Your task to perform on an android device: move a message to another label in the gmail app Image 0: 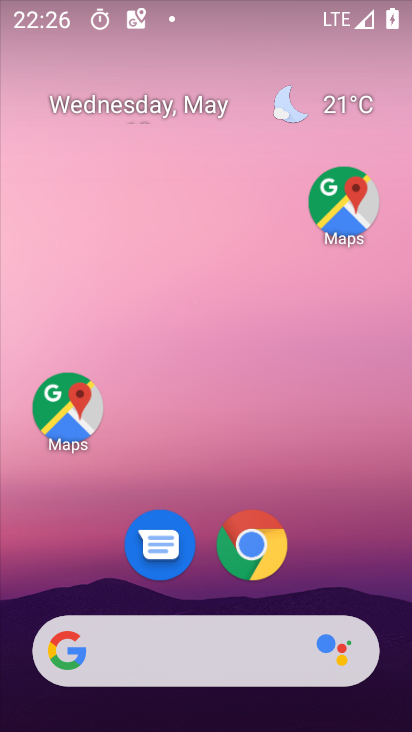
Step 0: drag from (308, 359) to (305, 49)
Your task to perform on an android device: move a message to another label in the gmail app Image 1: 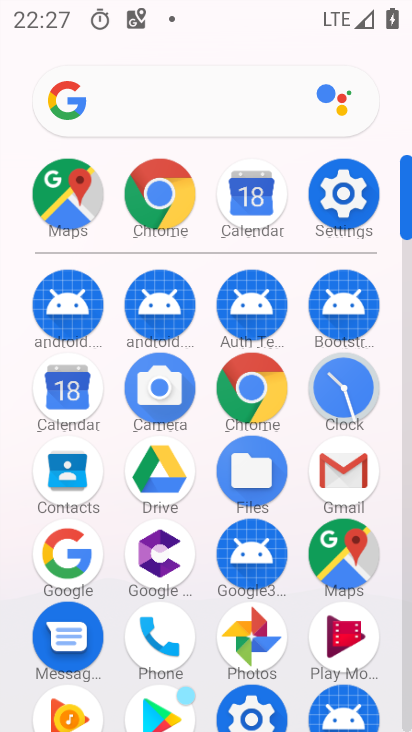
Step 1: click (338, 474)
Your task to perform on an android device: move a message to another label in the gmail app Image 2: 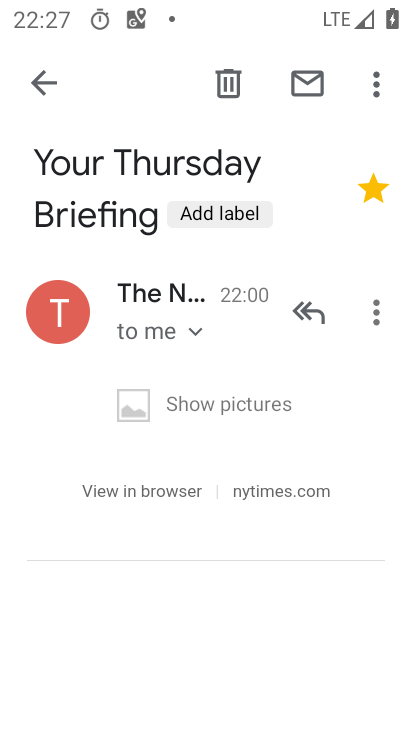
Step 2: click (227, 213)
Your task to perform on an android device: move a message to another label in the gmail app Image 3: 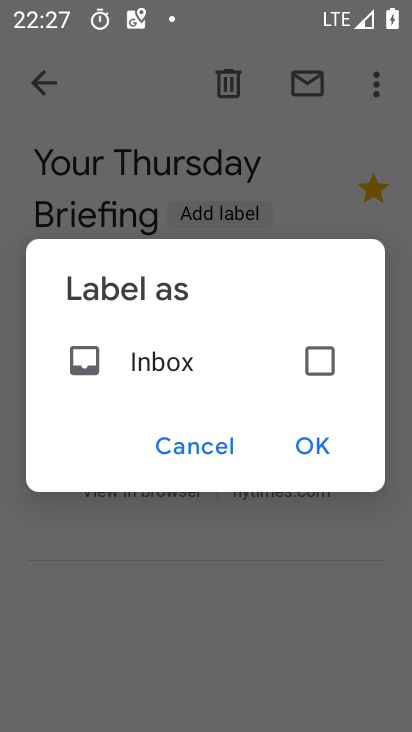
Step 3: click (328, 371)
Your task to perform on an android device: move a message to another label in the gmail app Image 4: 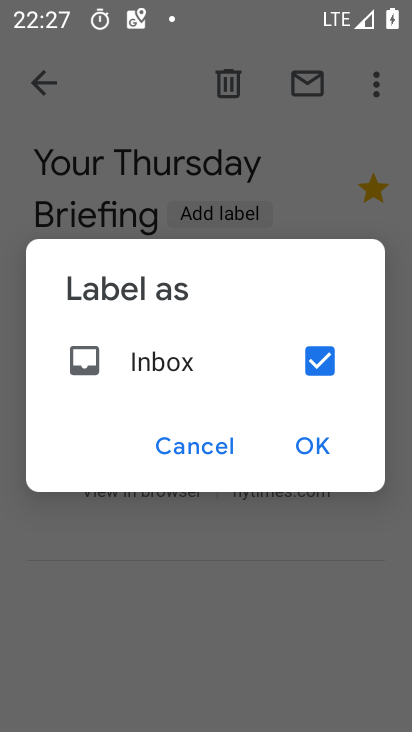
Step 4: click (311, 446)
Your task to perform on an android device: move a message to another label in the gmail app Image 5: 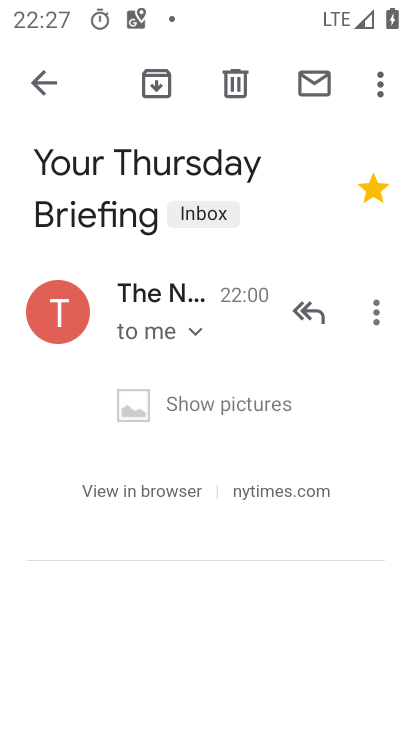
Step 5: task complete